Your task to perform on an android device: Go to battery settings Image 0: 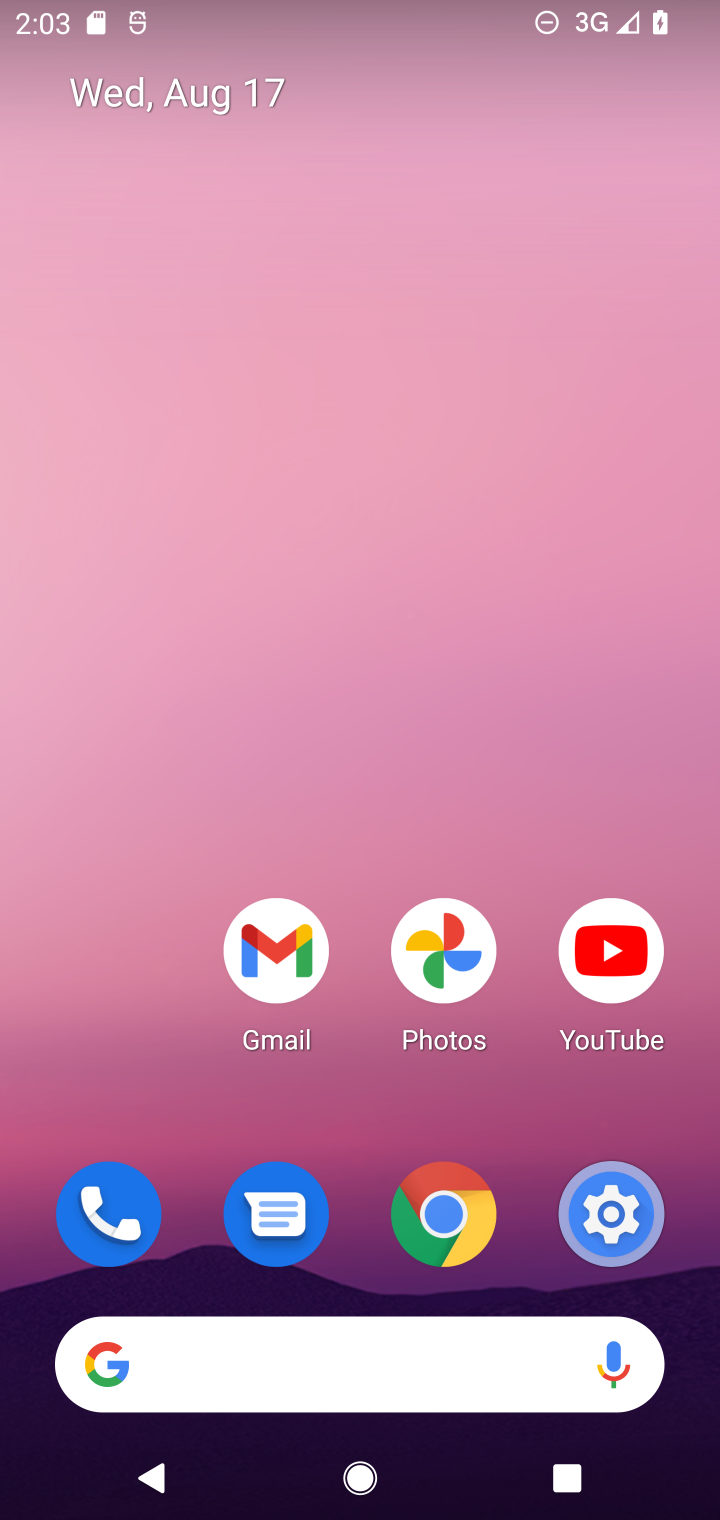
Step 0: click (618, 1200)
Your task to perform on an android device: Go to battery settings Image 1: 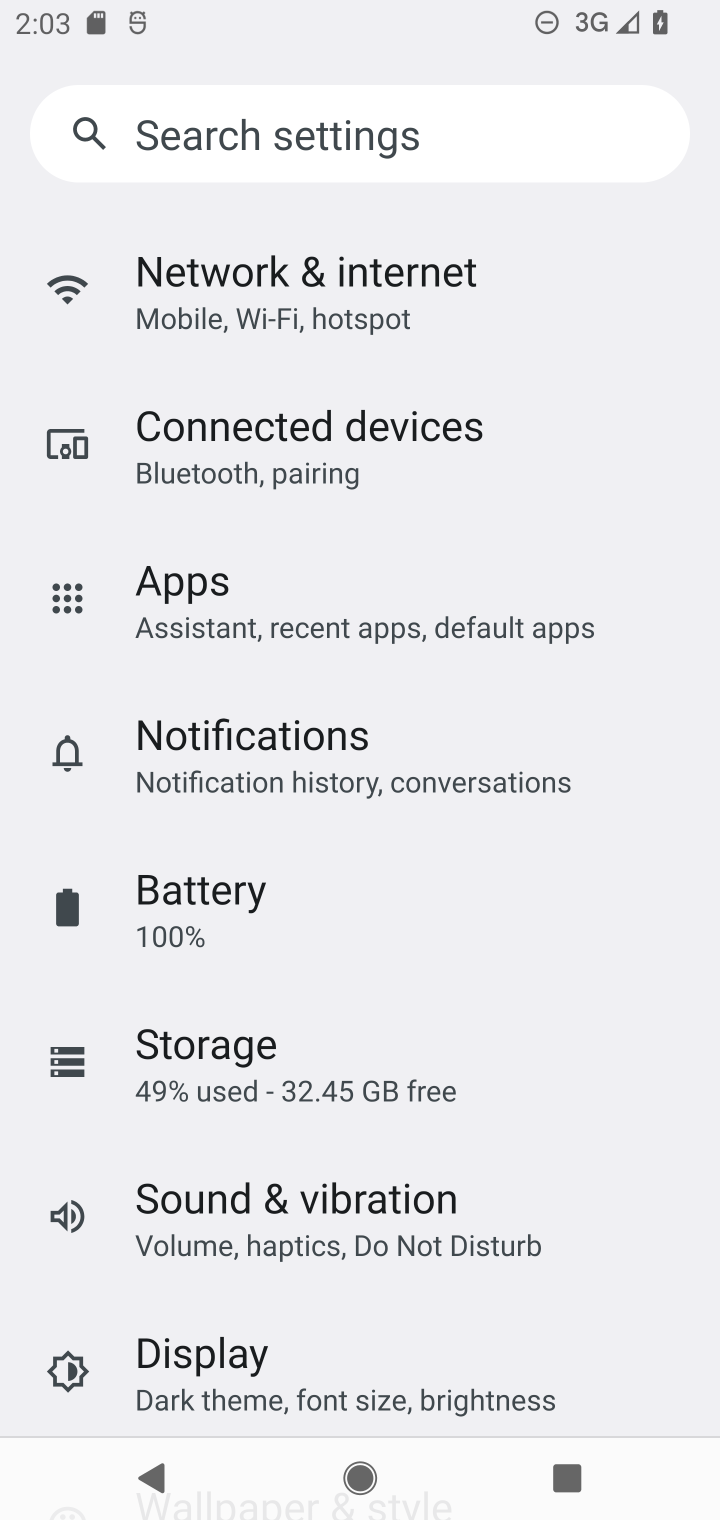
Step 1: click (194, 889)
Your task to perform on an android device: Go to battery settings Image 2: 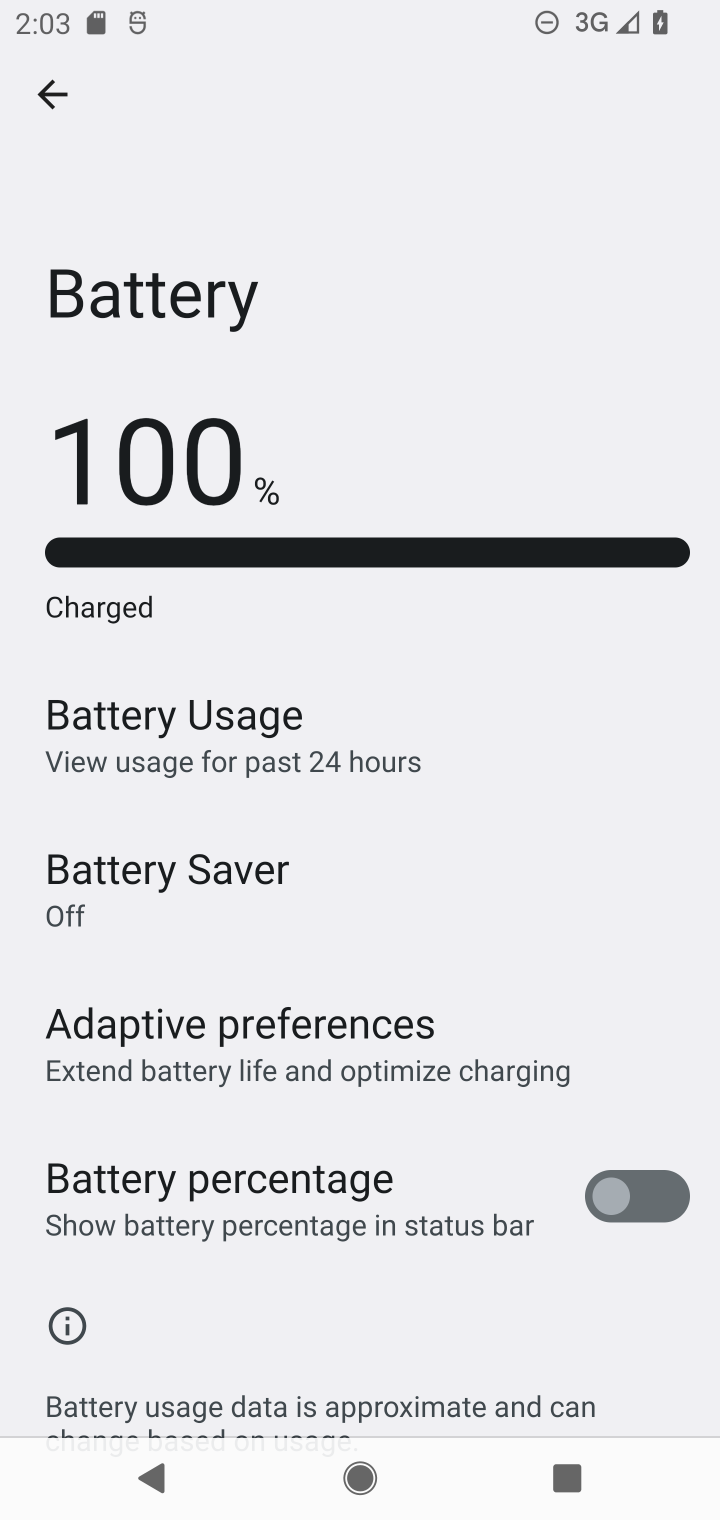
Step 2: task complete